Your task to perform on an android device: Open Youtube and go to "Your channel" Image 0: 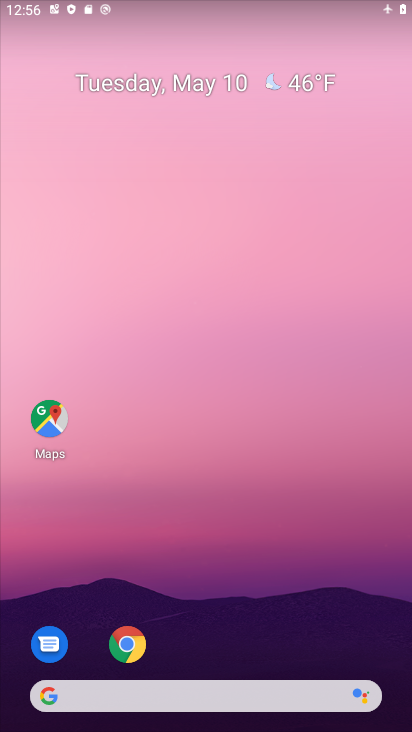
Step 0: drag from (209, 643) to (258, 343)
Your task to perform on an android device: Open Youtube and go to "Your channel" Image 1: 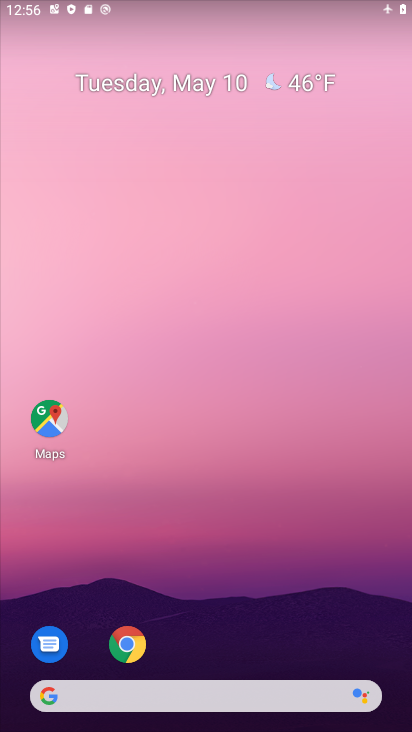
Step 1: drag from (244, 660) to (253, 218)
Your task to perform on an android device: Open Youtube and go to "Your channel" Image 2: 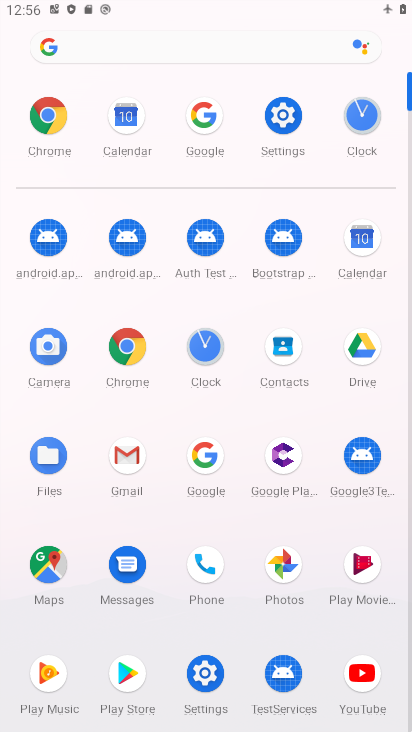
Step 2: click (357, 690)
Your task to perform on an android device: Open Youtube and go to "Your channel" Image 3: 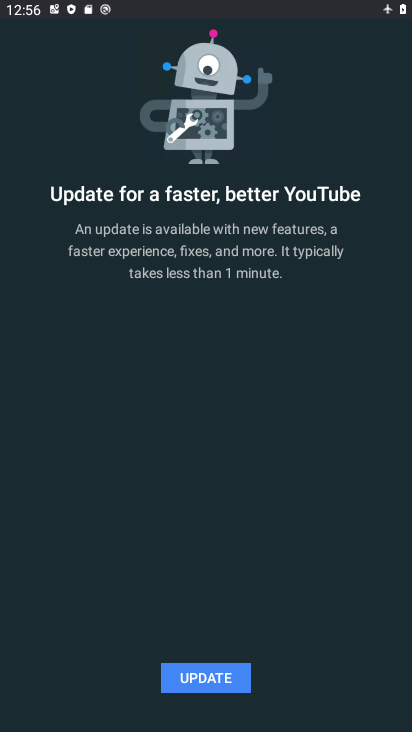
Step 3: click (240, 692)
Your task to perform on an android device: Open Youtube and go to "Your channel" Image 4: 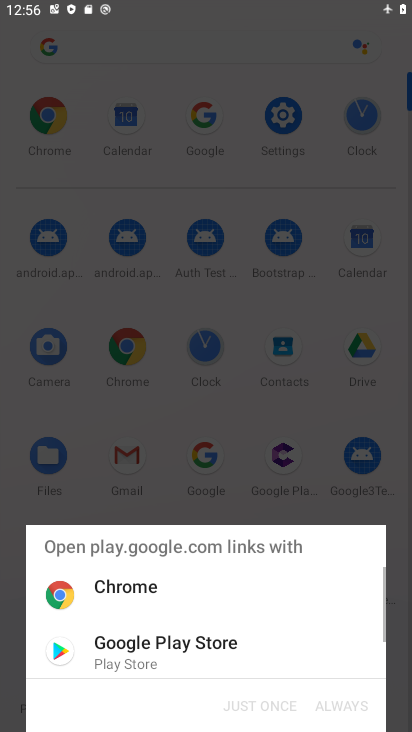
Step 4: click (154, 661)
Your task to perform on an android device: Open Youtube and go to "Your channel" Image 5: 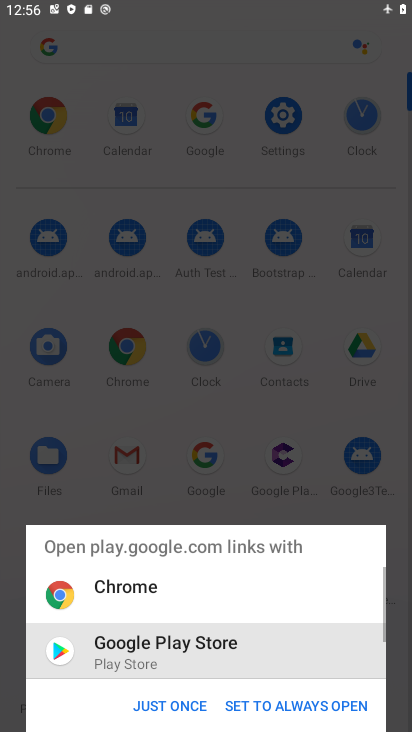
Step 5: click (154, 661)
Your task to perform on an android device: Open Youtube and go to "Your channel" Image 6: 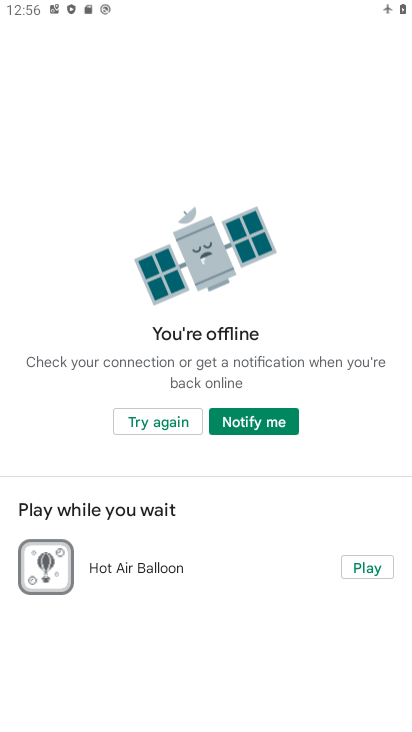
Step 6: click (167, 426)
Your task to perform on an android device: Open Youtube and go to "Your channel" Image 7: 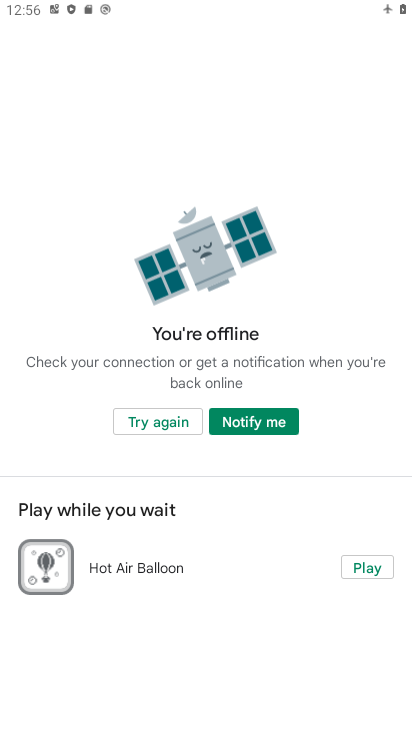
Step 7: task complete